Your task to perform on an android device: Open Chrome and go to settings Image 0: 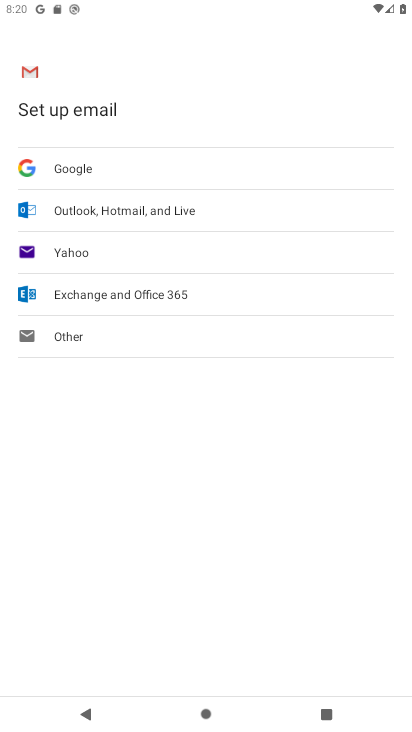
Step 0: press home button
Your task to perform on an android device: Open Chrome and go to settings Image 1: 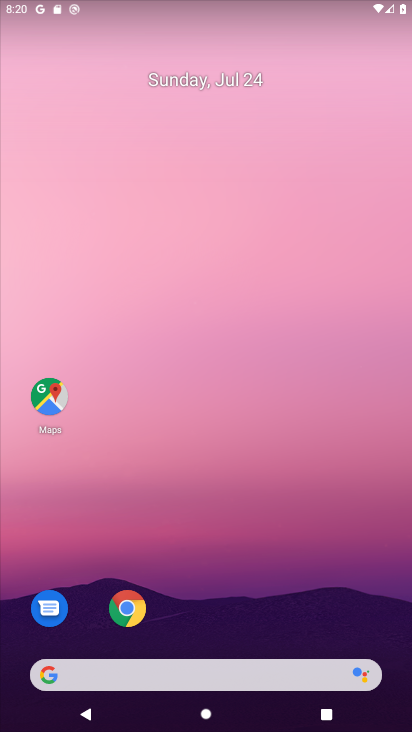
Step 1: click (132, 614)
Your task to perform on an android device: Open Chrome and go to settings Image 2: 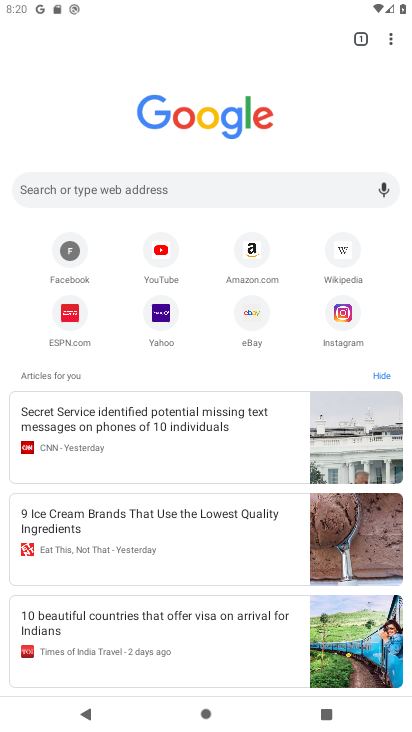
Step 2: click (400, 41)
Your task to perform on an android device: Open Chrome and go to settings Image 3: 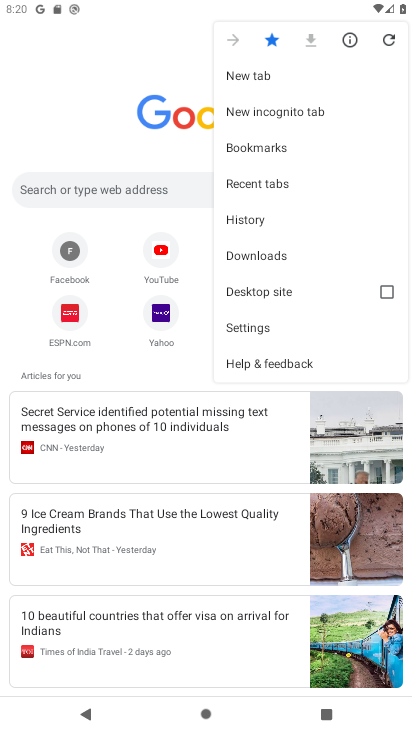
Step 3: click (246, 328)
Your task to perform on an android device: Open Chrome and go to settings Image 4: 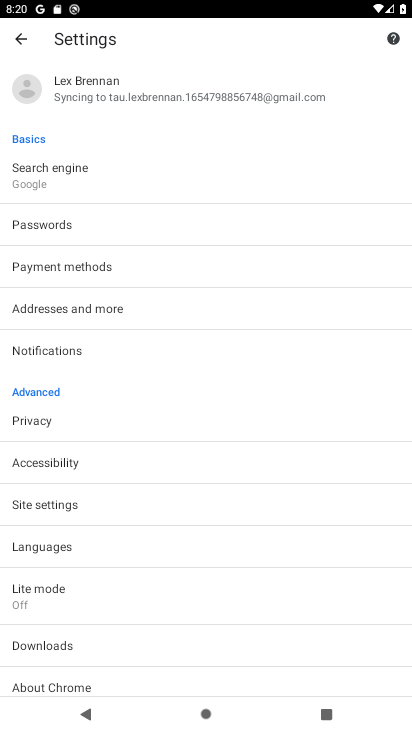
Step 4: task complete